Your task to perform on an android device: Go to Amazon Image 0: 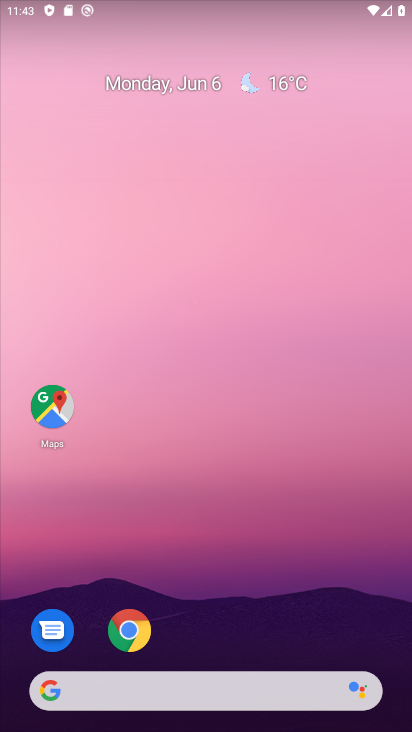
Step 0: drag from (345, 638) to (206, 11)
Your task to perform on an android device: Go to Amazon Image 1: 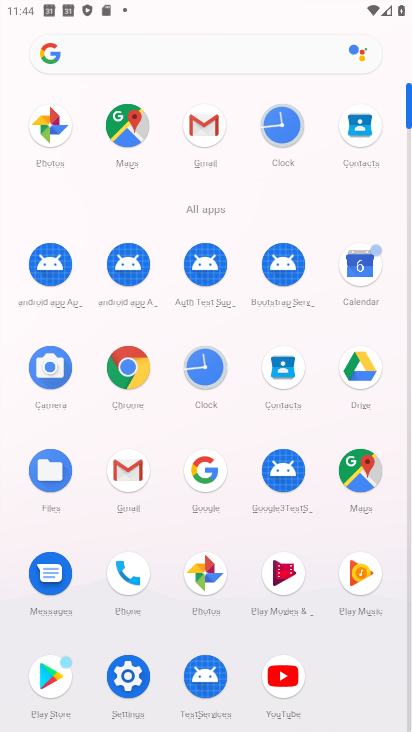
Step 1: click (225, 467)
Your task to perform on an android device: Go to Amazon Image 2: 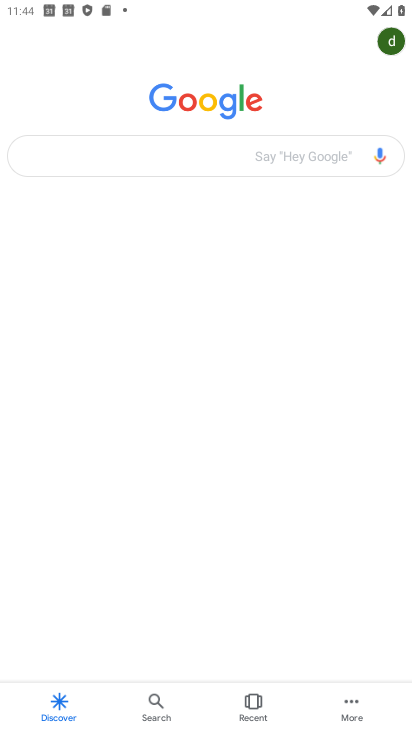
Step 2: click (133, 156)
Your task to perform on an android device: Go to Amazon Image 3: 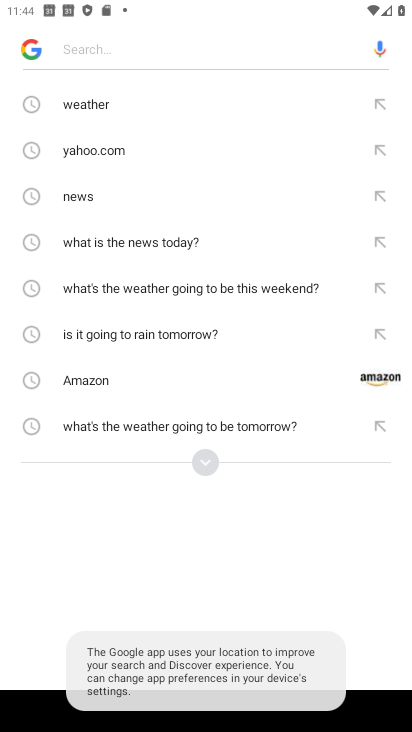
Step 3: click (106, 374)
Your task to perform on an android device: Go to Amazon Image 4: 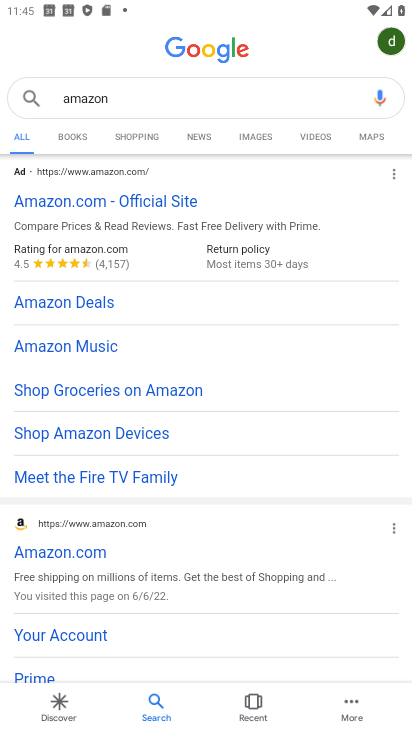
Step 4: task complete